Your task to perform on an android device: visit the assistant section in the google photos Image 0: 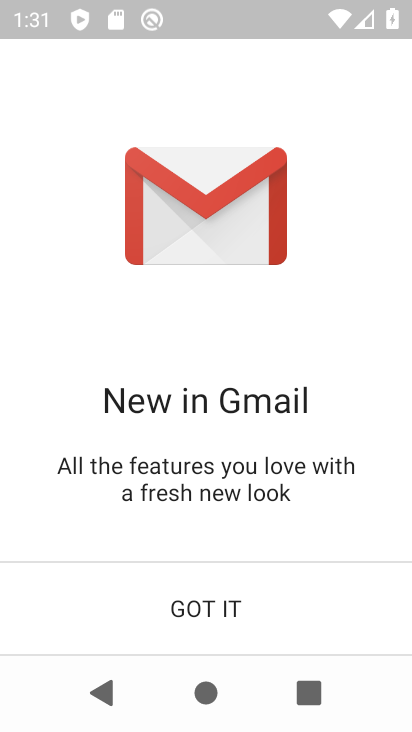
Step 0: press home button
Your task to perform on an android device: visit the assistant section in the google photos Image 1: 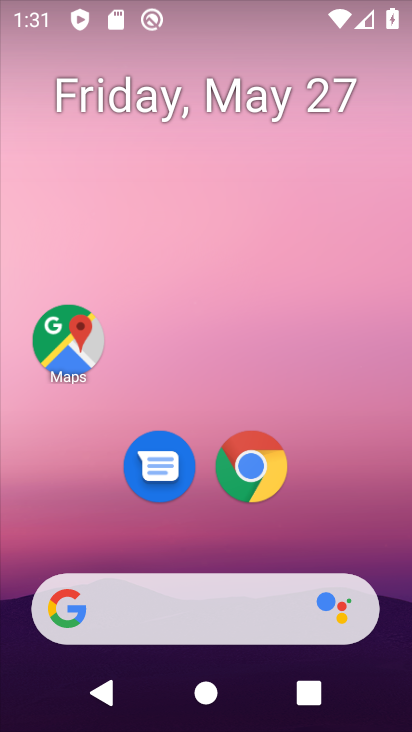
Step 1: drag from (370, 531) to (261, 12)
Your task to perform on an android device: visit the assistant section in the google photos Image 2: 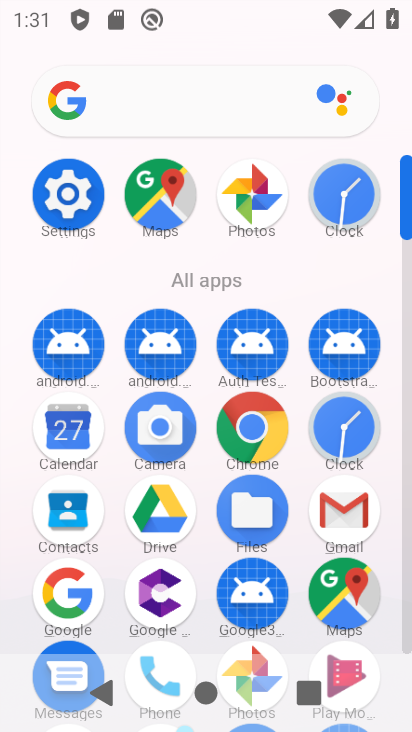
Step 2: click (263, 649)
Your task to perform on an android device: visit the assistant section in the google photos Image 3: 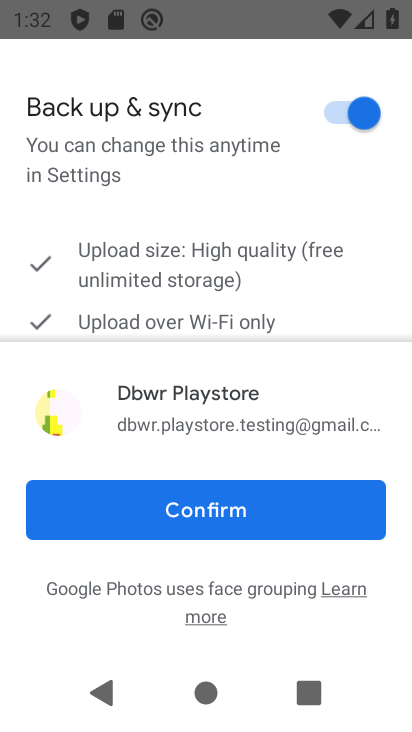
Step 3: drag from (196, 517) to (210, 409)
Your task to perform on an android device: visit the assistant section in the google photos Image 4: 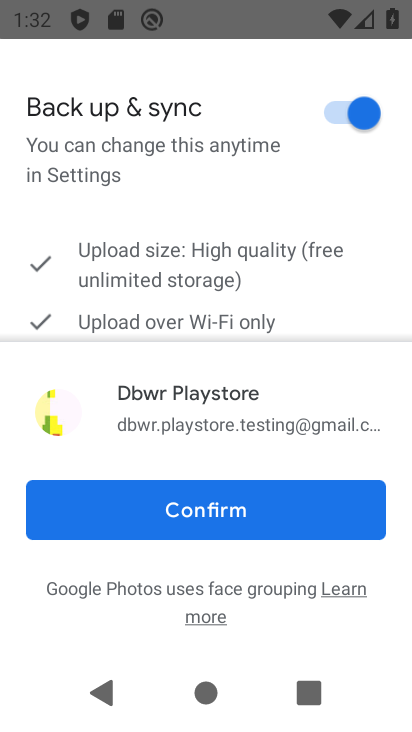
Step 4: click (209, 506)
Your task to perform on an android device: visit the assistant section in the google photos Image 5: 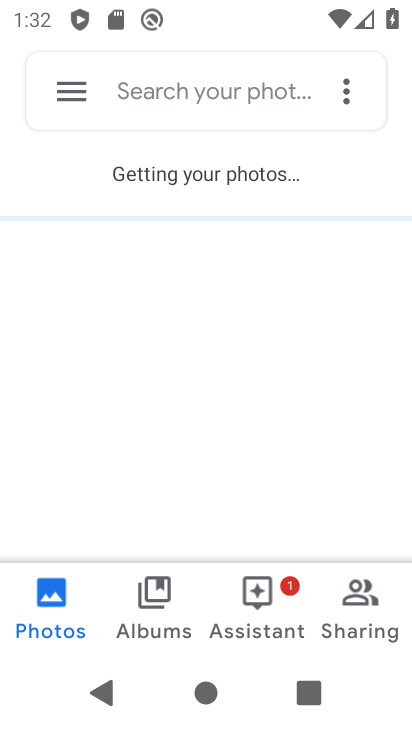
Step 5: click (209, 506)
Your task to perform on an android device: visit the assistant section in the google photos Image 6: 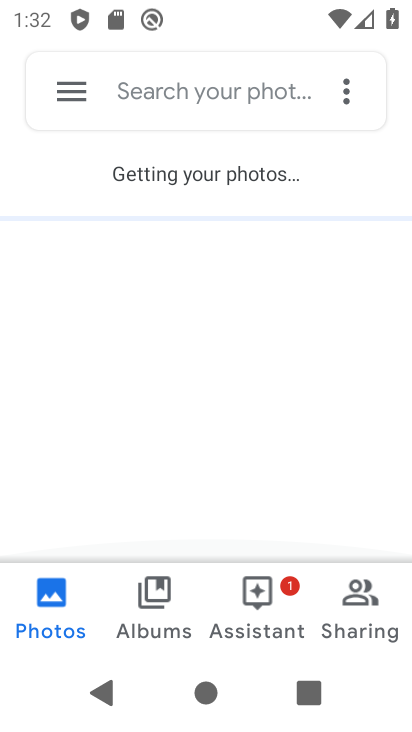
Step 6: click (254, 605)
Your task to perform on an android device: visit the assistant section in the google photos Image 7: 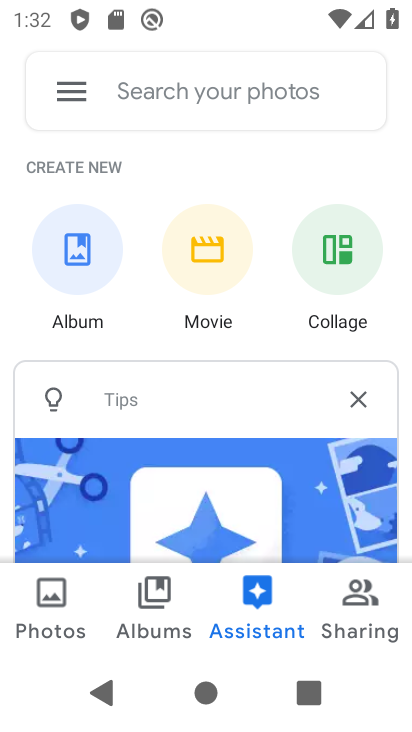
Step 7: task complete